Your task to perform on an android device: turn off smart reply in the gmail app Image 0: 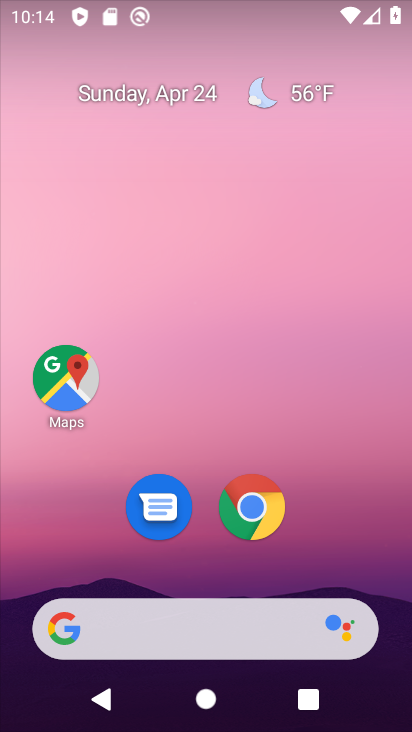
Step 0: drag from (376, 607) to (354, 54)
Your task to perform on an android device: turn off smart reply in the gmail app Image 1: 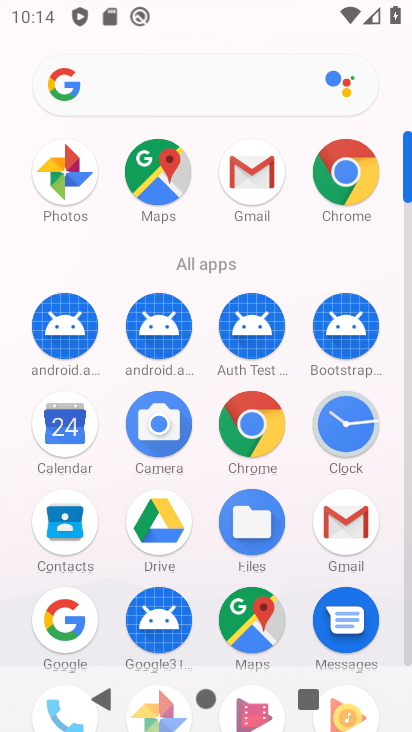
Step 1: click (408, 654)
Your task to perform on an android device: turn off smart reply in the gmail app Image 2: 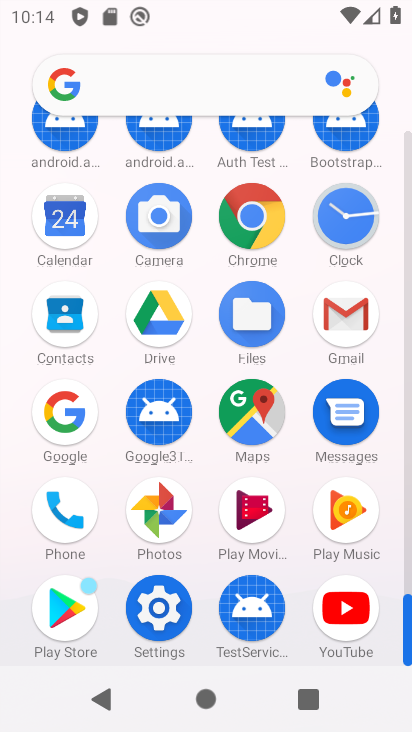
Step 2: click (349, 319)
Your task to perform on an android device: turn off smart reply in the gmail app Image 3: 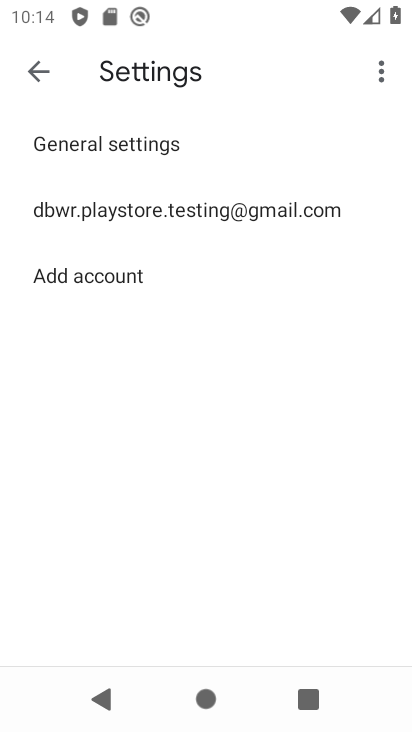
Step 3: click (123, 207)
Your task to perform on an android device: turn off smart reply in the gmail app Image 4: 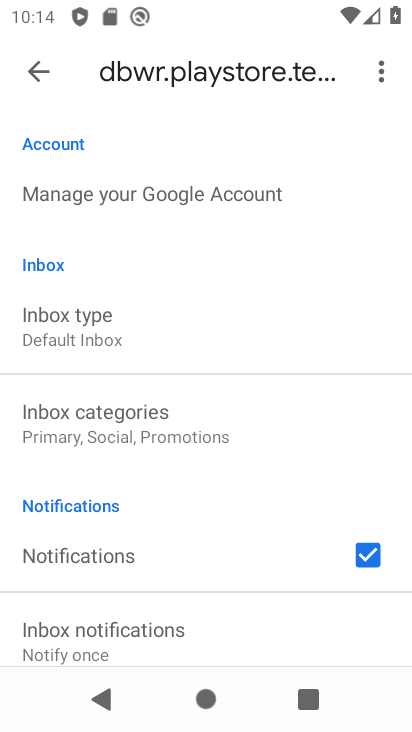
Step 4: drag from (208, 557) to (201, 184)
Your task to perform on an android device: turn off smart reply in the gmail app Image 5: 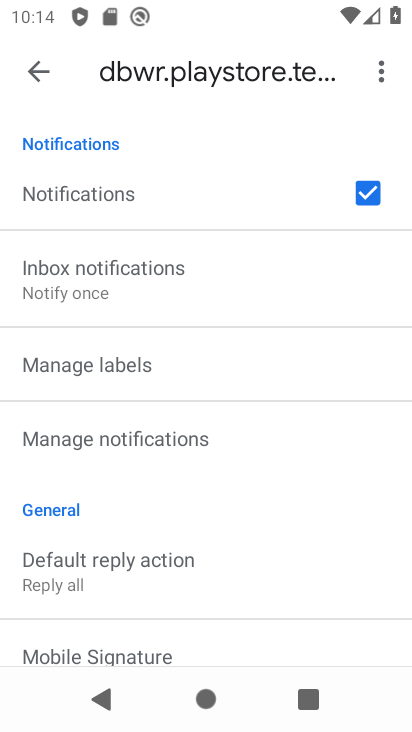
Step 5: drag from (212, 555) to (213, 65)
Your task to perform on an android device: turn off smart reply in the gmail app Image 6: 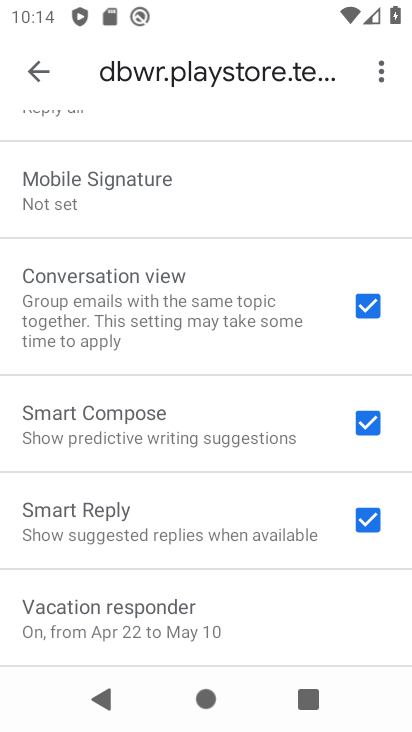
Step 6: click (372, 520)
Your task to perform on an android device: turn off smart reply in the gmail app Image 7: 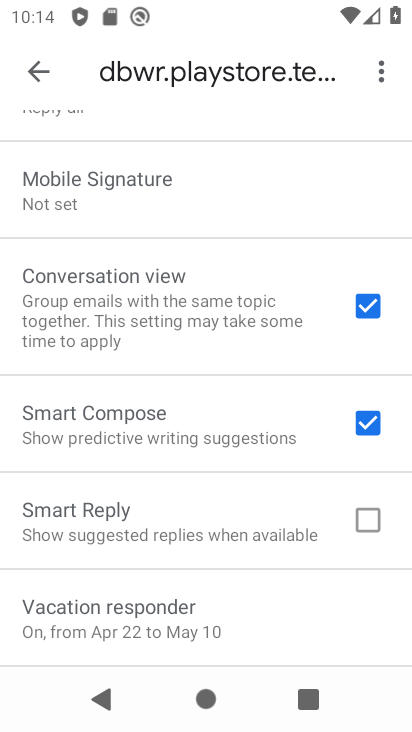
Step 7: task complete